Your task to perform on an android device: Open calendar and show me the first week of next month Image 0: 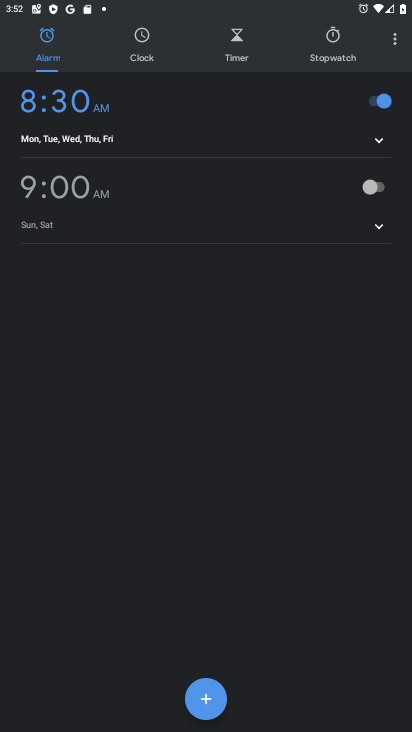
Step 0: press home button
Your task to perform on an android device: Open calendar and show me the first week of next month Image 1: 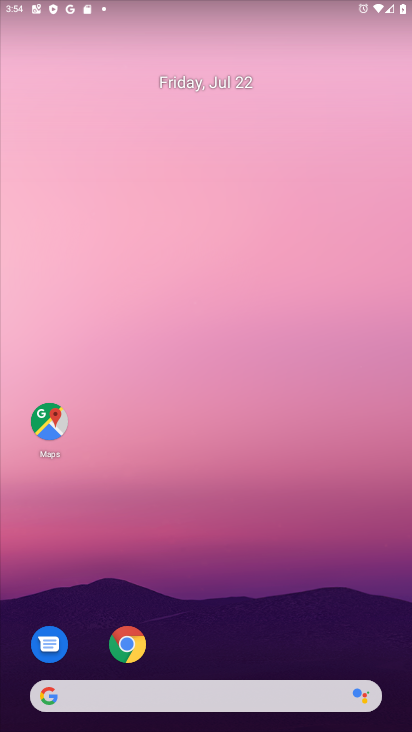
Step 1: drag from (221, 577) to (189, 344)
Your task to perform on an android device: Open calendar and show me the first week of next month Image 2: 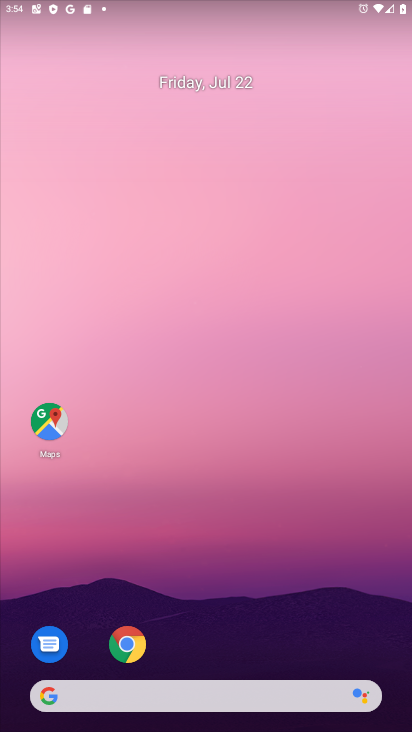
Step 2: drag from (287, 540) to (302, 242)
Your task to perform on an android device: Open calendar and show me the first week of next month Image 3: 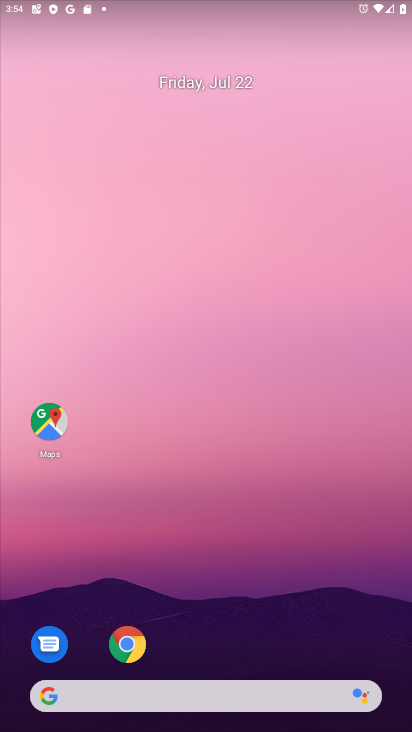
Step 3: drag from (275, 429) to (283, 20)
Your task to perform on an android device: Open calendar and show me the first week of next month Image 4: 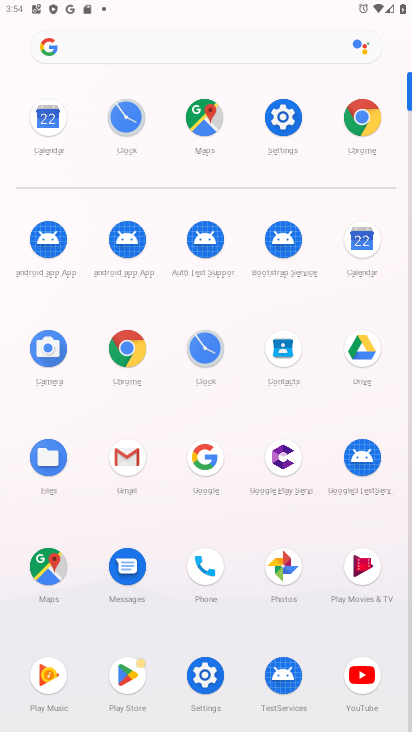
Step 4: click (358, 241)
Your task to perform on an android device: Open calendar and show me the first week of next month Image 5: 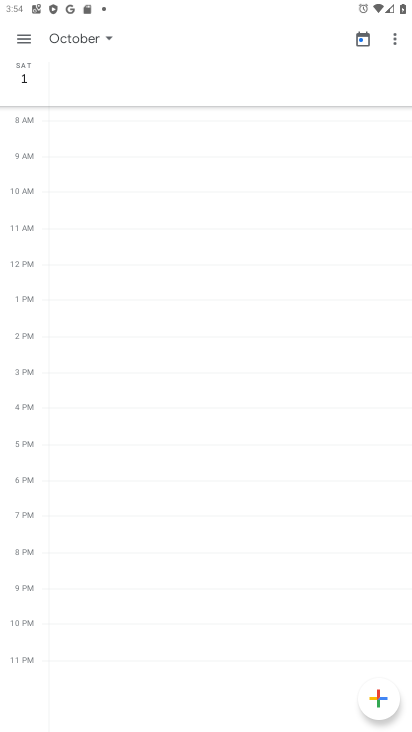
Step 5: task complete